Your task to perform on an android device: check google app version Image 0: 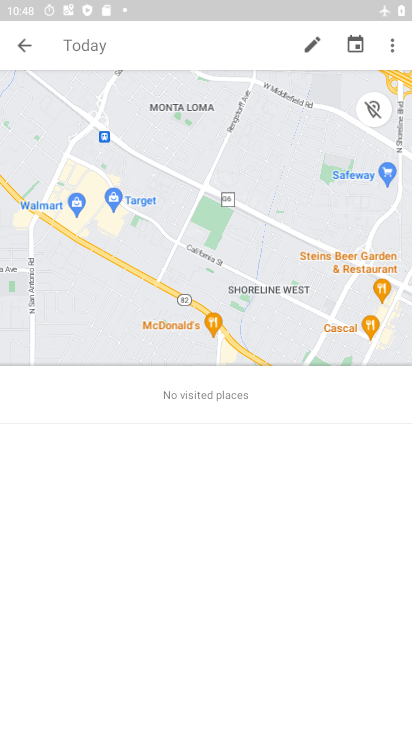
Step 0: press home button
Your task to perform on an android device: check google app version Image 1: 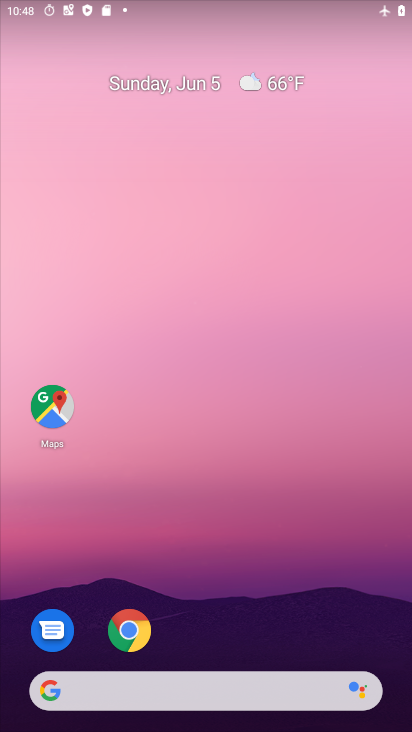
Step 1: drag from (236, 712) to (228, 170)
Your task to perform on an android device: check google app version Image 2: 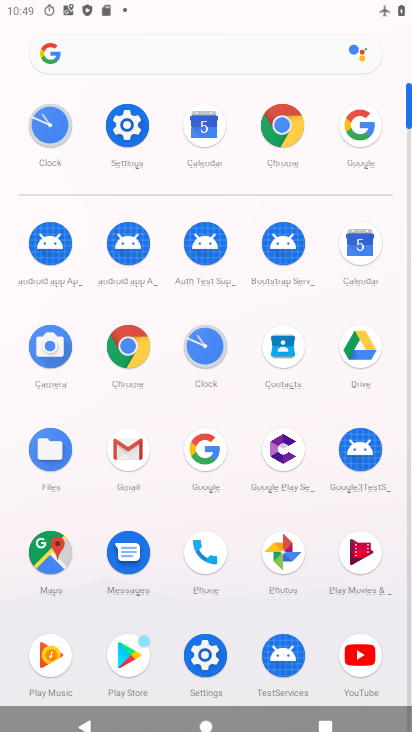
Step 2: click (208, 452)
Your task to perform on an android device: check google app version Image 3: 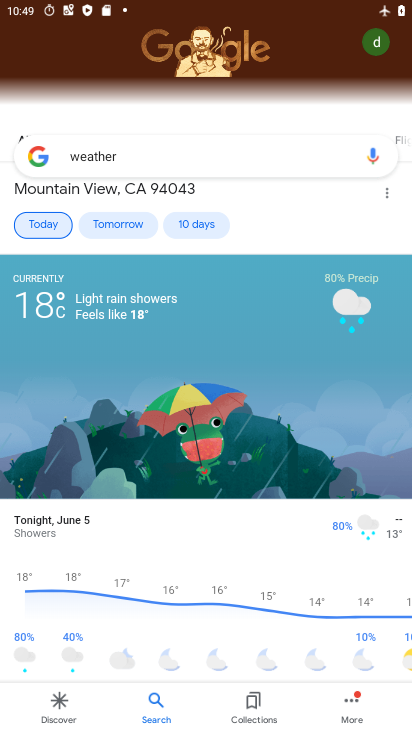
Step 3: click (351, 697)
Your task to perform on an android device: check google app version Image 4: 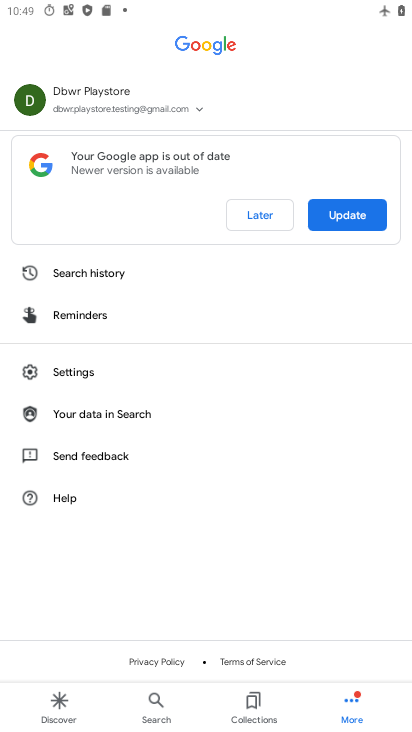
Step 4: click (77, 371)
Your task to perform on an android device: check google app version Image 5: 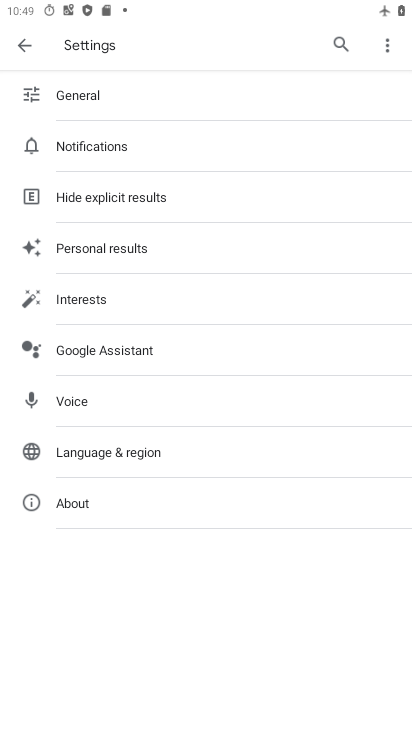
Step 5: click (71, 502)
Your task to perform on an android device: check google app version Image 6: 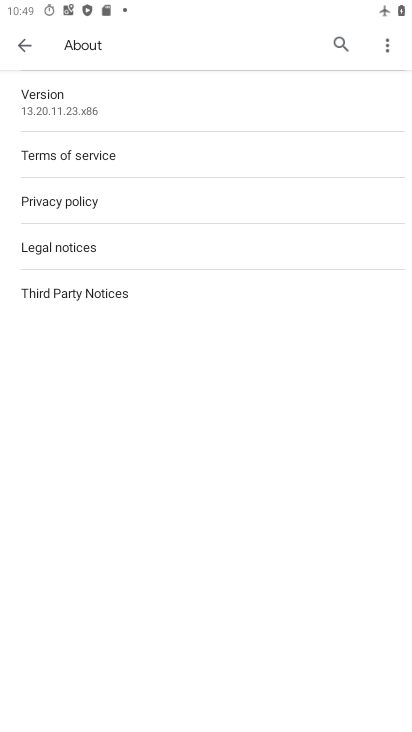
Step 6: task complete